Your task to perform on an android device: Do I have any events today? Image 0: 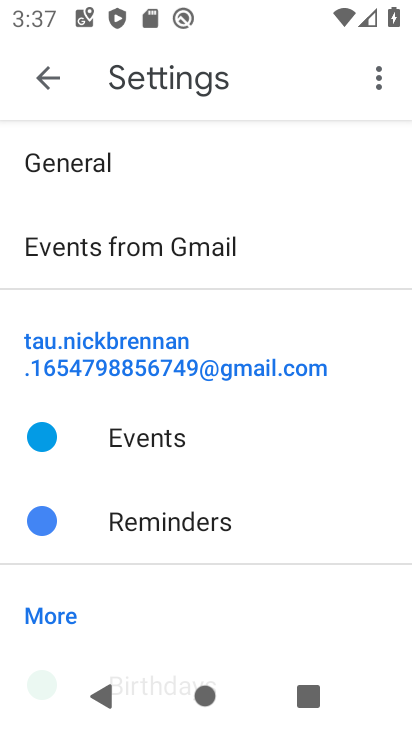
Step 0: press back button
Your task to perform on an android device: Do I have any events today? Image 1: 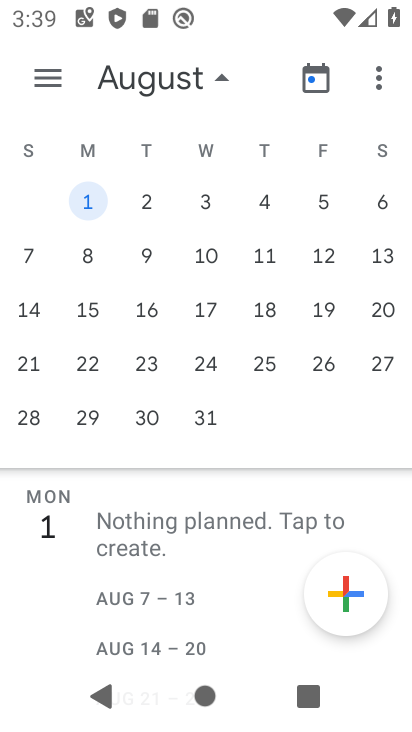
Step 1: drag from (49, 302) to (408, 236)
Your task to perform on an android device: Do I have any events today? Image 2: 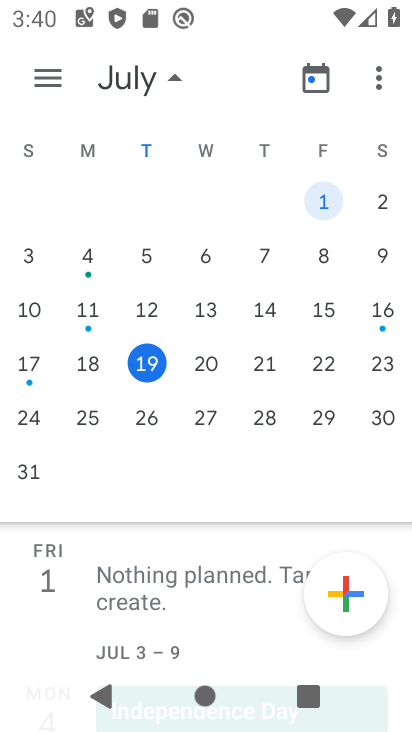
Step 2: click (158, 350)
Your task to perform on an android device: Do I have any events today? Image 3: 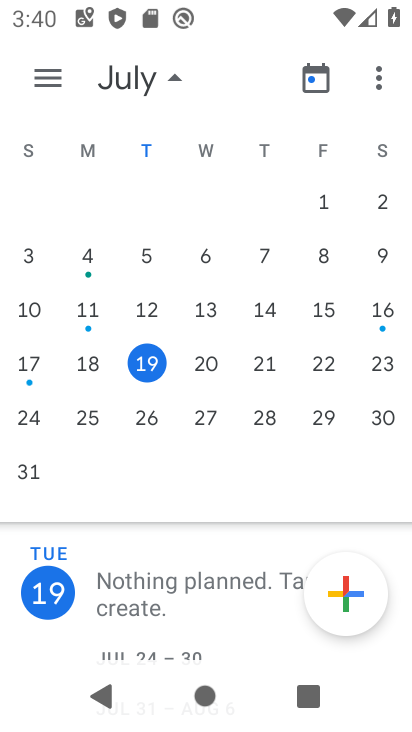
Step 3: task complete